Your task to perform on an android device: turn on priority inbox in the gmail app Image 0: 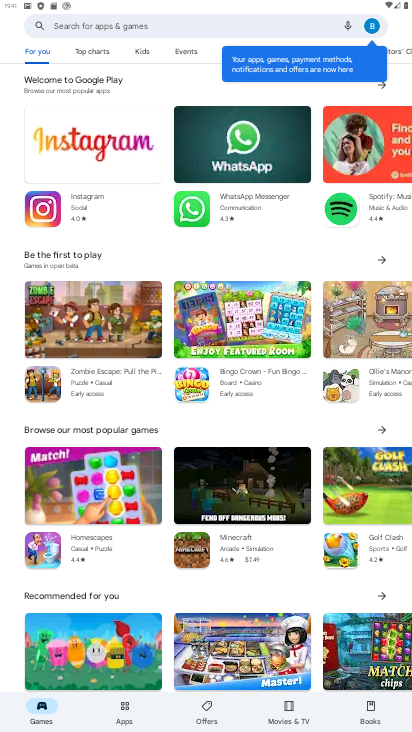
Step 0: press home button
Your task to perform on an android device: turn on priority inbox in the gmail app Image 1: 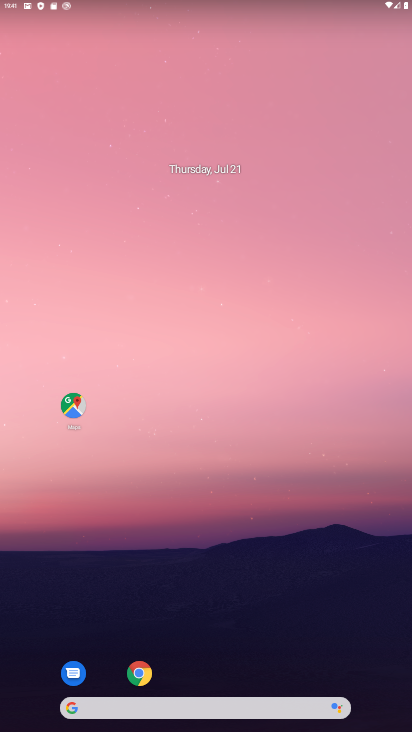
Step 1: drag from (292, 536) to (182, 99)
Your task to perform on an android device: turn on priority inbox in the gmail app Image 2: 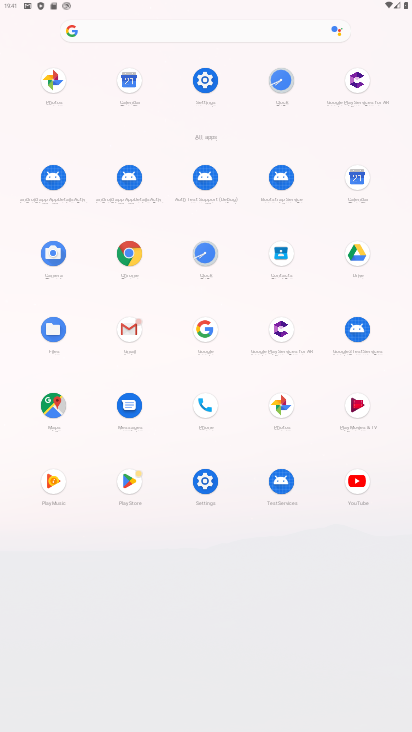
Step 2: click (132, 338)
Your task to perform on an android device: turn on priority inbox in the gmail app Image 3: 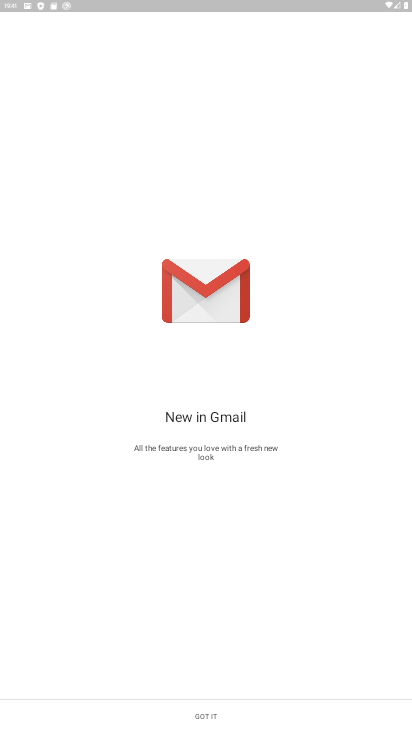
Step 3: click (268, 718)
Your task to perform on an android device: turn on priority inbox in the gmail app Image 4: 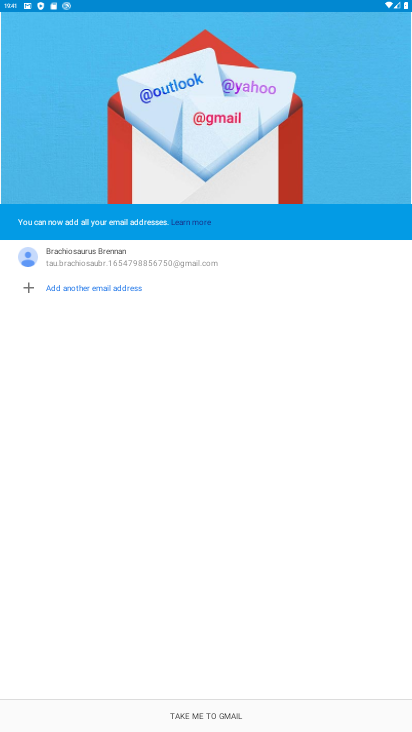
Step 4: click (270, 715)
Your task to perform on an android device: turn on priority inbox in the gmail app Image 5: 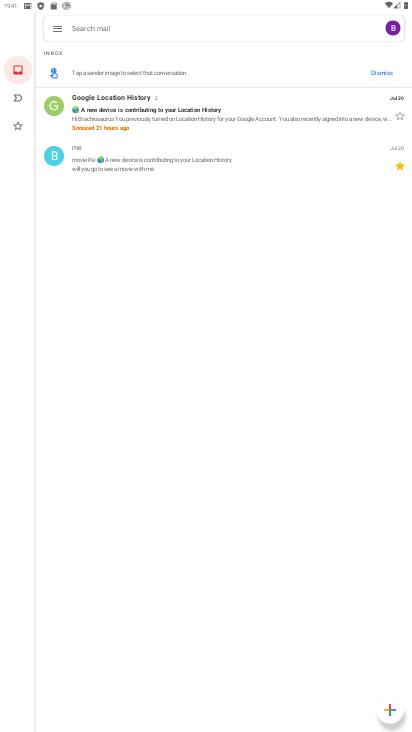
Step 5: click (54, 34)
Your task to perform on an android device: turn on priority inbox in the gmail app Image 6: 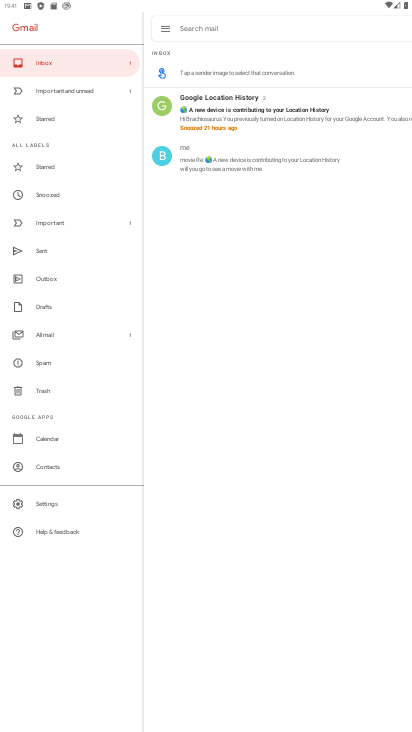
Step 6: click (33, 507)
Your task to perform on an android device: turn on priority inbox in the gmail app Image 7: 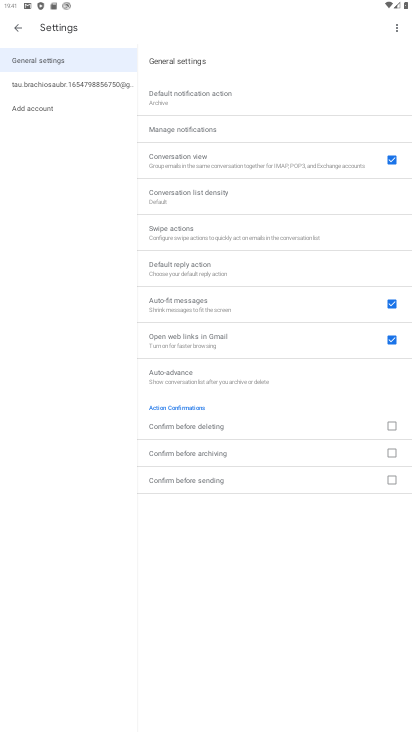
Step 7: click (64, 83)
Your task to perform on an android device: turn on priority inbox in the gmail app Image 8: 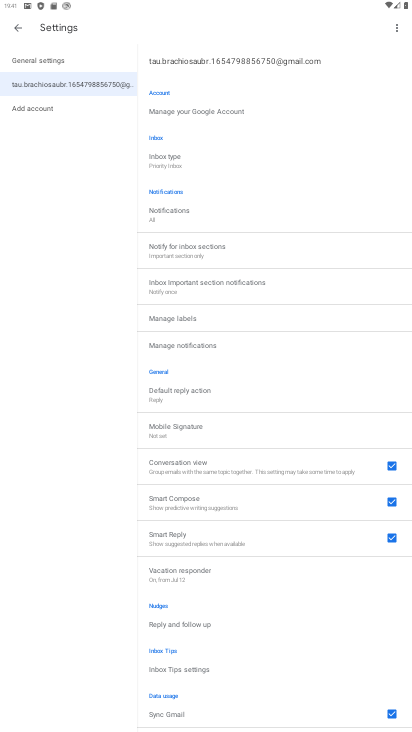
Step 8: click (182, 164)
Your task to perform on an android device: turn on priority inbox in the gmail app Image 9: 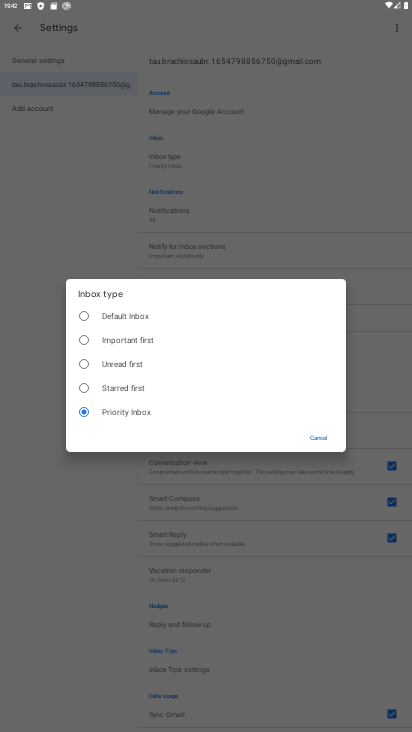
Step 9: task complete